Your task to perform on an android device: open a new tab in the chrome app Image 0: 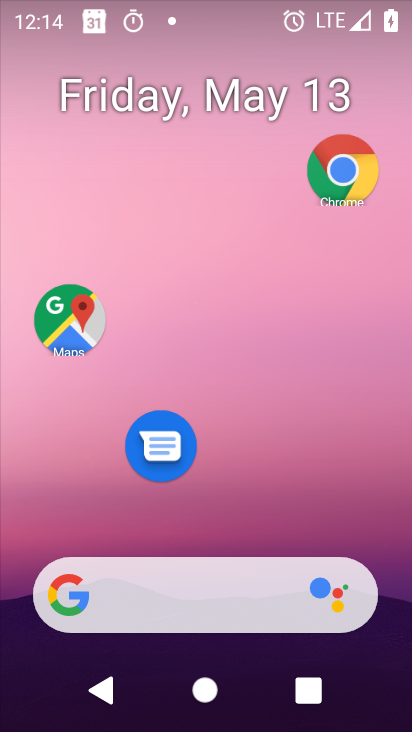
Step 0: drag from (124, 576) to (140, 14)
Your task to perform on an android device: open a new tab in the chrome app Image 1: 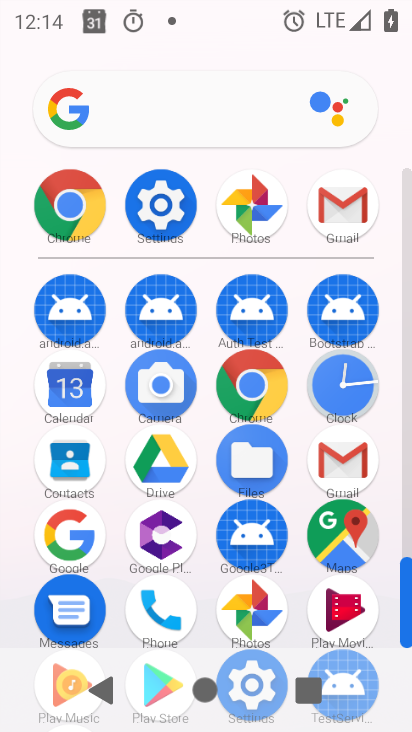
Step 1: click (261, 385)
Your task to perform on an android device: open a new tab in the chrome app Image 2: 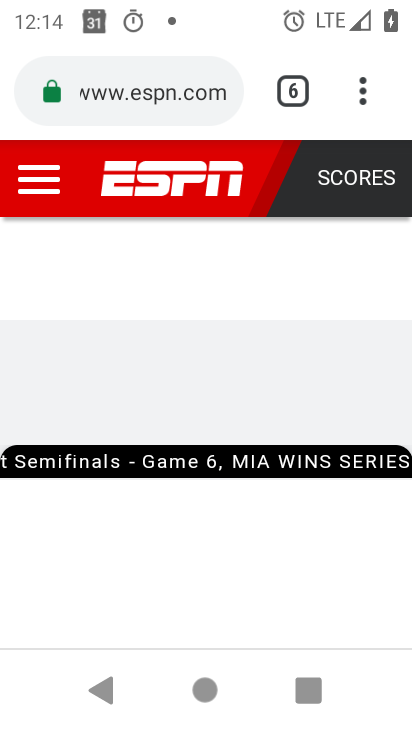
Step 2: task complete